Your task to perform on an android device: turn on the 12-hour format for clock Image 0: 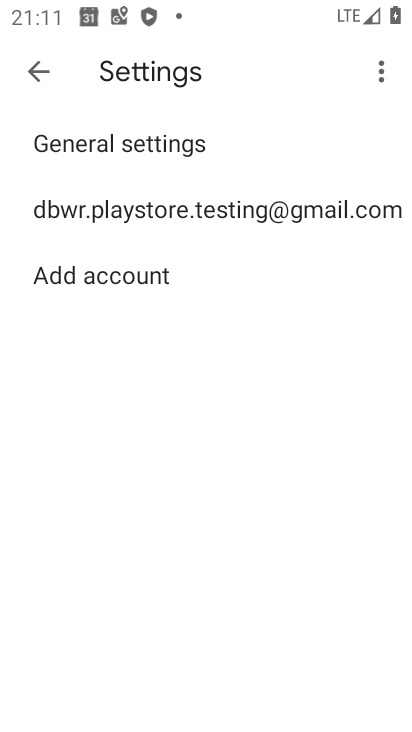
Step 0: press home button
Your task to perform on an android device: turn on the 12-hour format for clock Image 1: 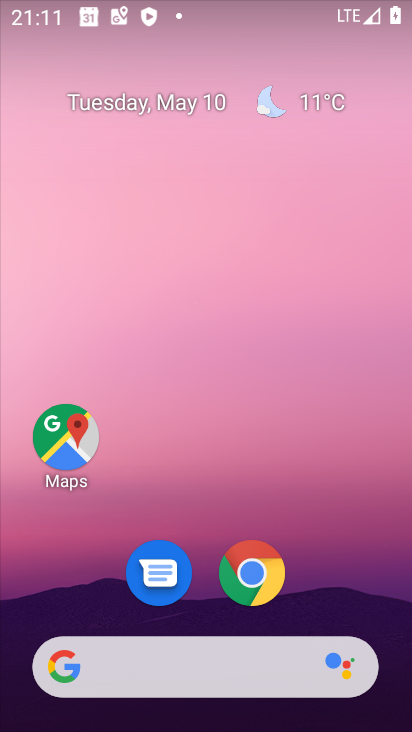
Step 1: drag from (370, 617) to (352, 4)
Your task to perform on an android device: turn on the 12-hour format for clock Image 2: 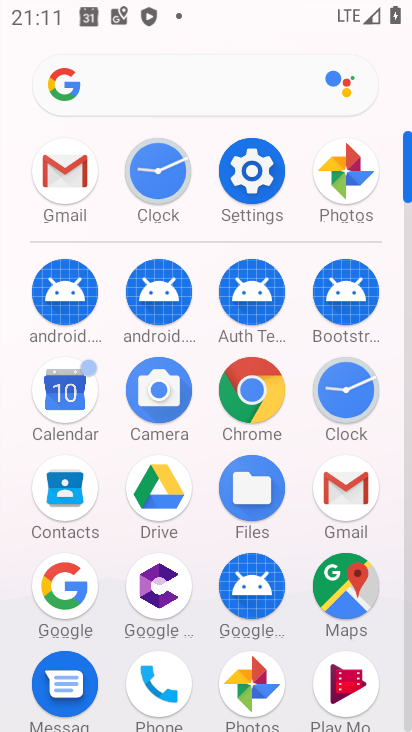
Step 2: click (162, 158)
Your task to perform on an android device: turn on the 12-hour format for clock Image 3: 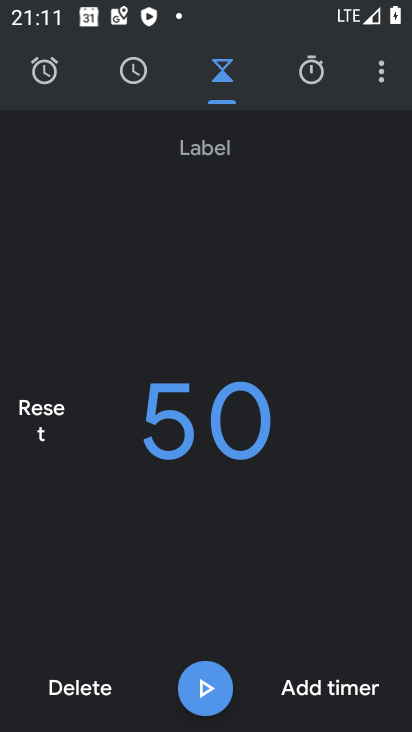
Step 3: click (382, 76)
Your task to perform on an android device: turn on the 12-hour format for clock Image 4: 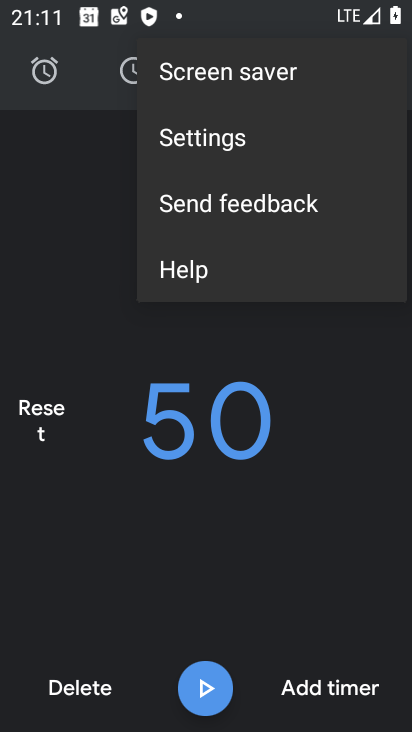
Step 4: click (187, 146)
Your task to perform on an android device: turn on the 12-hour format for clock Image 5: 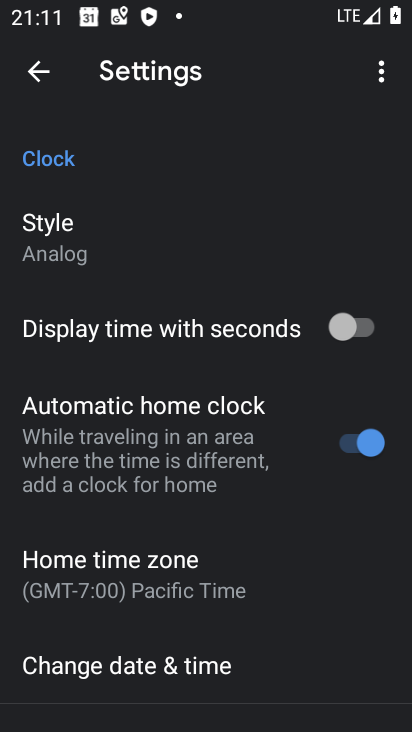
Step 5: click (152, 671)
Your task to perform on an android device: turn on the 12-hour format for clock Image 6: 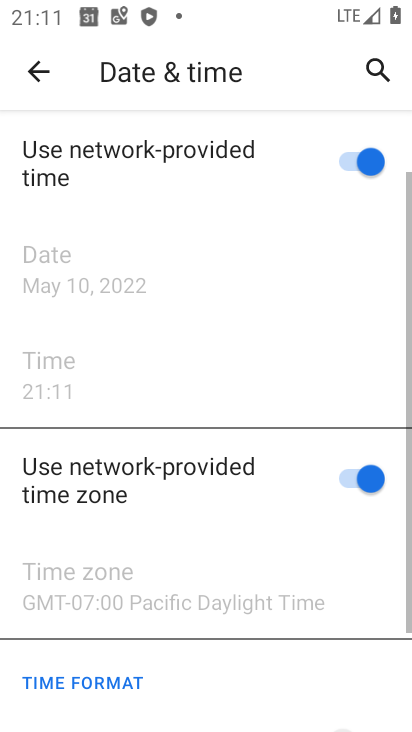
Step 6: drag from (227, 654) to (217, 167)
Your task to perform on an android device: turn on the 12-hour format for clock Image 7: 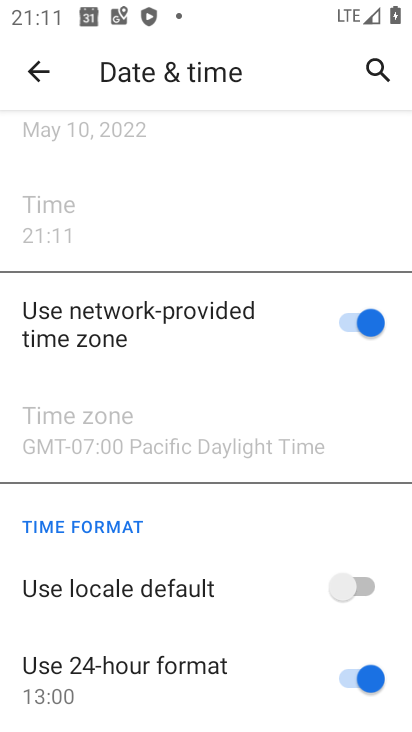
Step 7: click (375, 686)
Your task to perform on an android device: turn on the 12-hour format for clock Image 8: 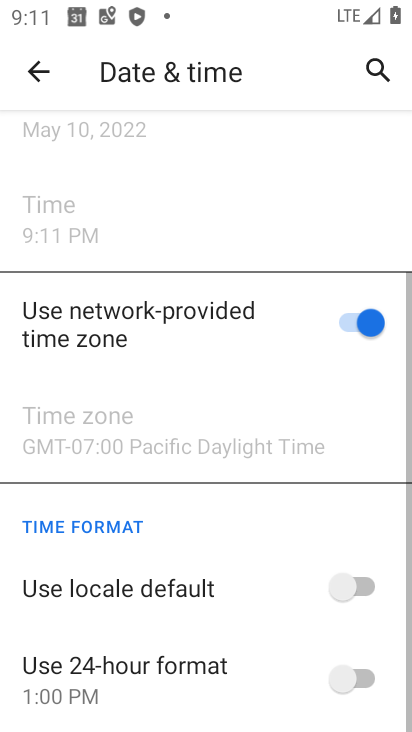
Step 8: click (359, 572)
Your task to perform on an android device: turn on the 12-hour format for clock Image 9: 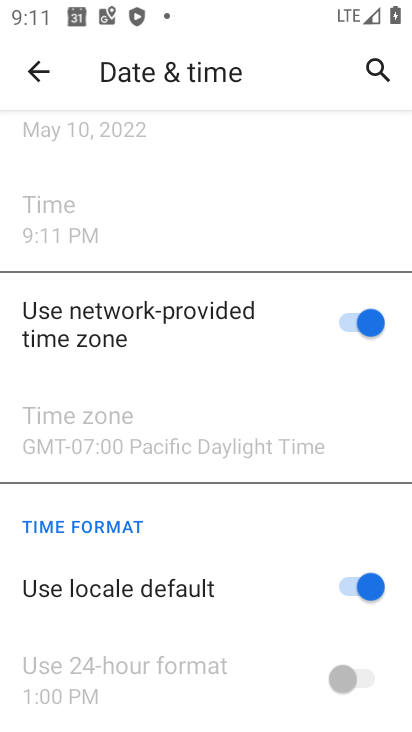
Step 9: task complete